Your task to perform on an android device: choose inbox layout in the gmail app Image 0: 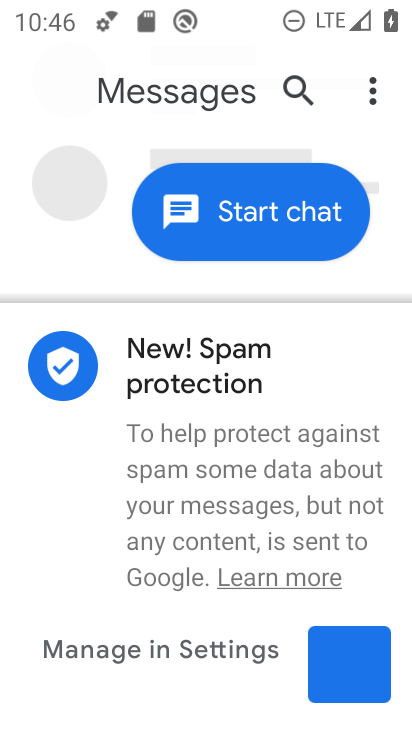
Step 0: press home button
Your task to perform on an android device: choose inbox layout in the gmail app Image 1: 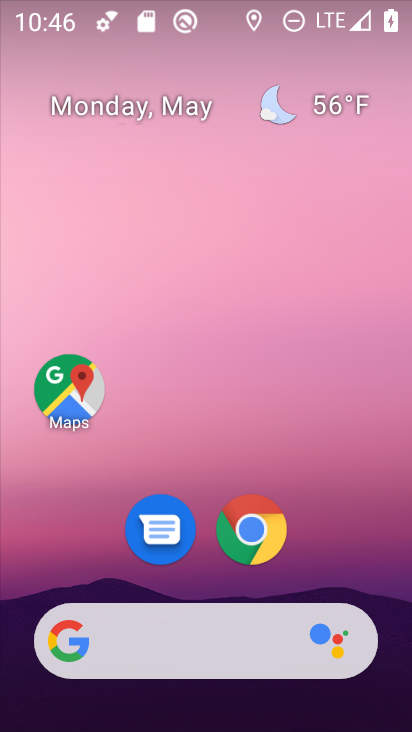
Step 1: drag from (211, 622) to (198, 16)
Your task to perform on an android device: choose inbox layout in the gmail app Image 2: 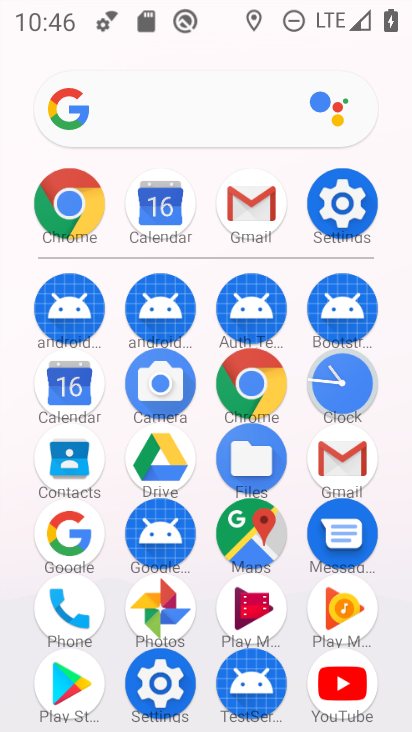
Step 2: click (323, 438)
Your task to perform on an android device: choose inbox layout in the gmail app Image 3: 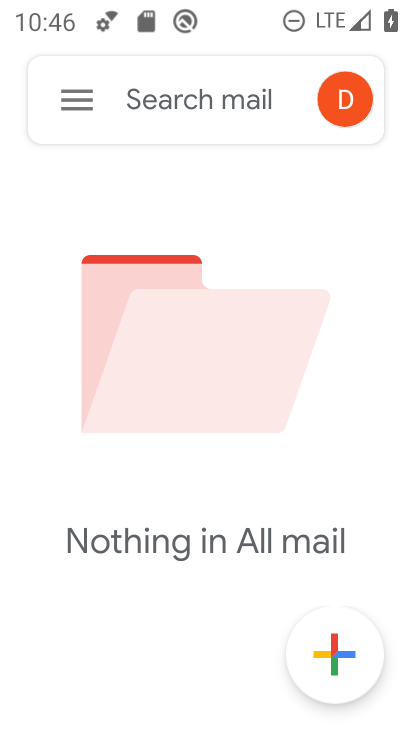
Step 3: click (81, 100)
Your task to perform on an android device: choose inbox layout in the gmail app Image 4: 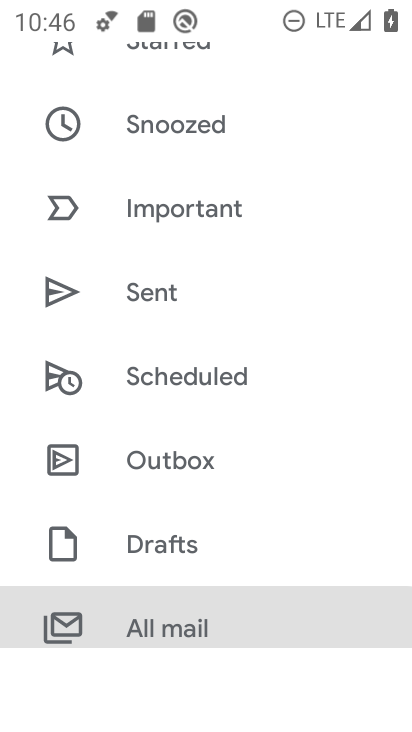
Step 4: drag from (151, 538) to (66, 74)
Your task to perform on an android device: choose inbox layout in the gmail app Image 5: 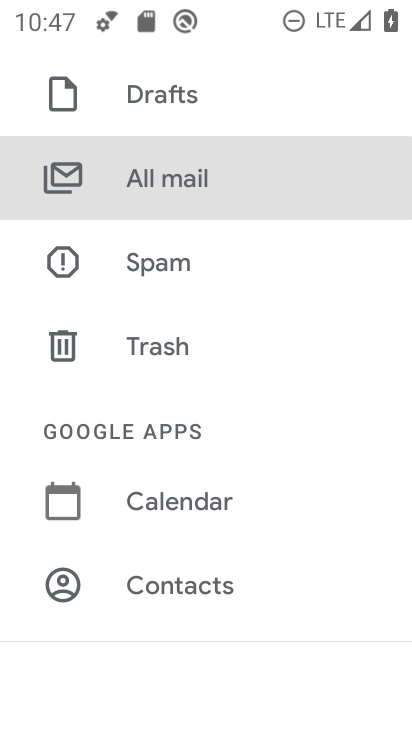
Step 5: drag from (158, 608) to (129, 185)
Your task to perform on an android device: choose inbox layout in the gmail app Image 6: 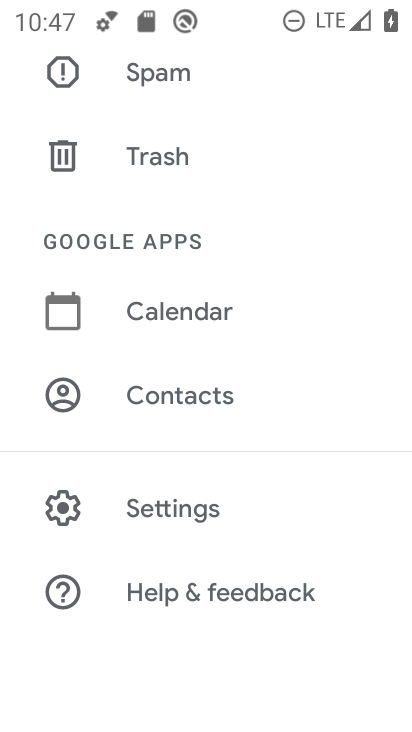
Step 6: click (157, 517)
Your task to perform on an android device: choose inbox layout in the gmail app Image 7: 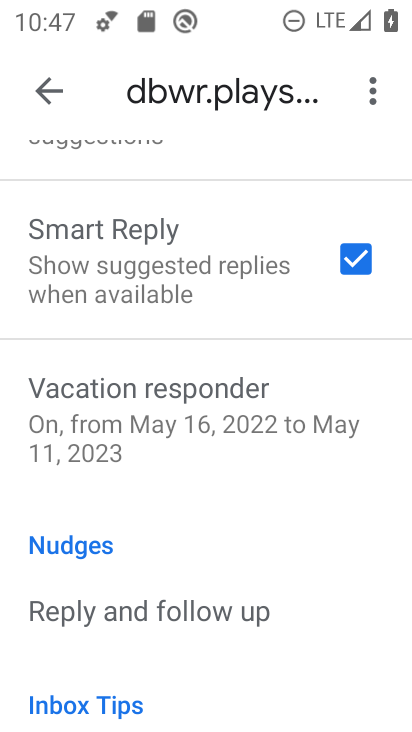
Step 7: drag from (143, 254) to (81, 610)
Your task to perform on an android device: choose inbox layout in the gmail app Image 8: 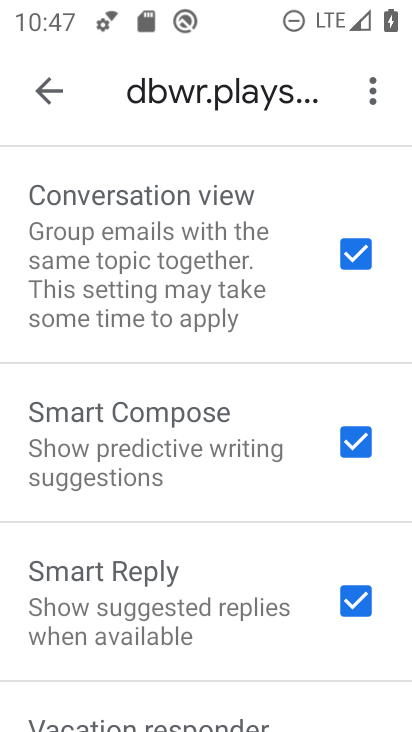
Step 8: drag from (131, 241) to (65, 644)
Your task to perform on an android device: choose inbox layout in the gmail app Image 9: 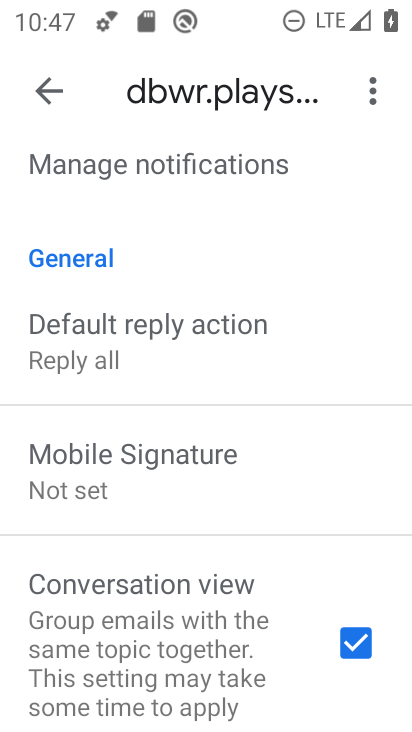
Step 9: drag from (124, 255) to (95, 506)
Your task to perform on an android device: choose inbox layout in the gmail app Image 10: 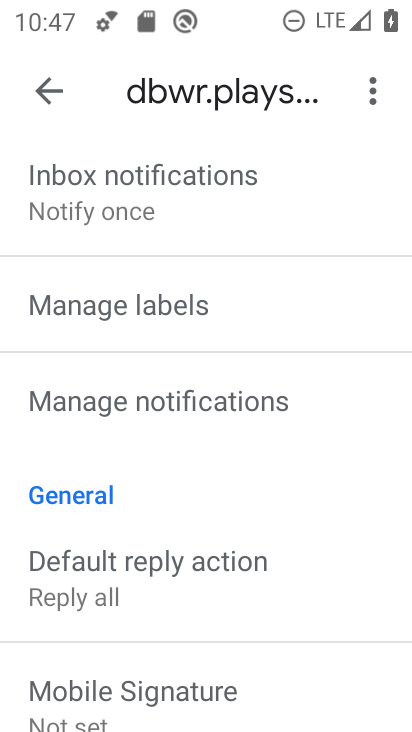
Step 10: drag from (139, 234) to (105, 681)
Your task to perform on an android device: choose inbox layout in the gmail app Image 11: 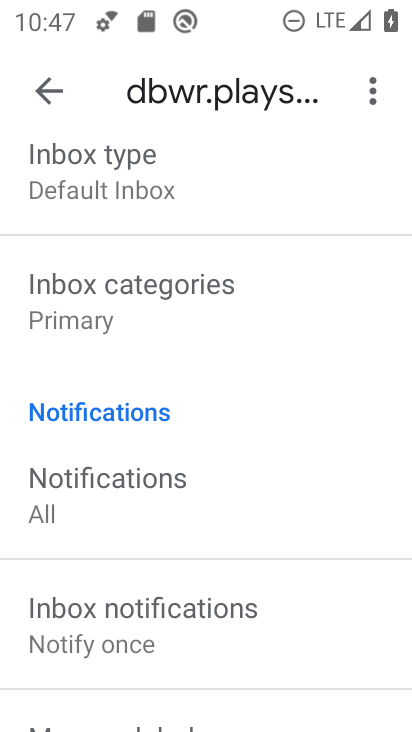
Step 11: click (105, 198)
Your task to perform on an android device: choose inbox layout in the gmail app Image 12: 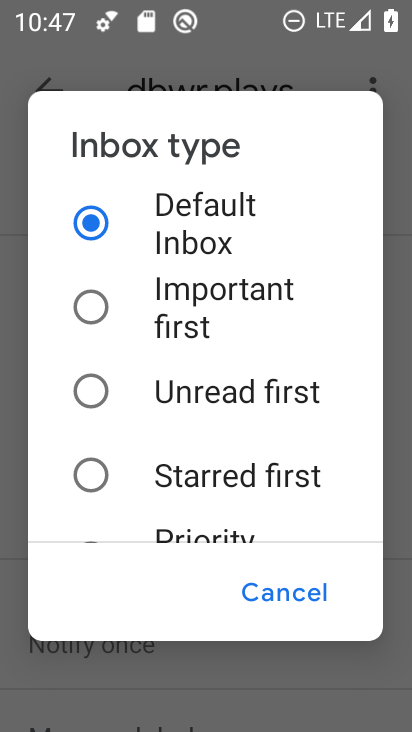
Step 12: drag from (133, 478) to (74, 85)
Your task to perform on an android device: choose inbox layout in the gmail app Image 13: 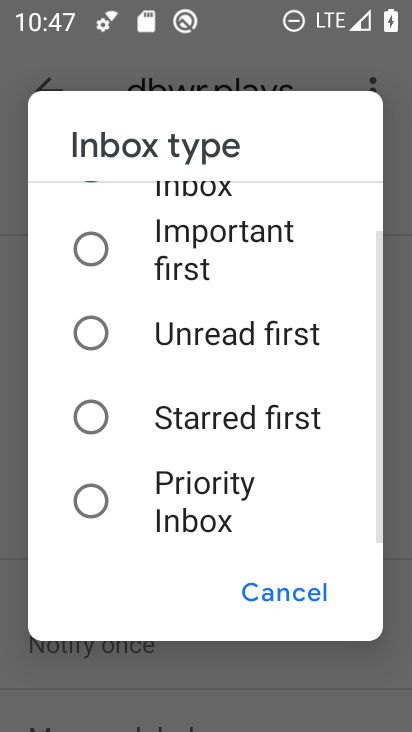
Step 13: click (100, 496)
Your task to perform on an android device: choose inbox layout in the gmail app Image 14: 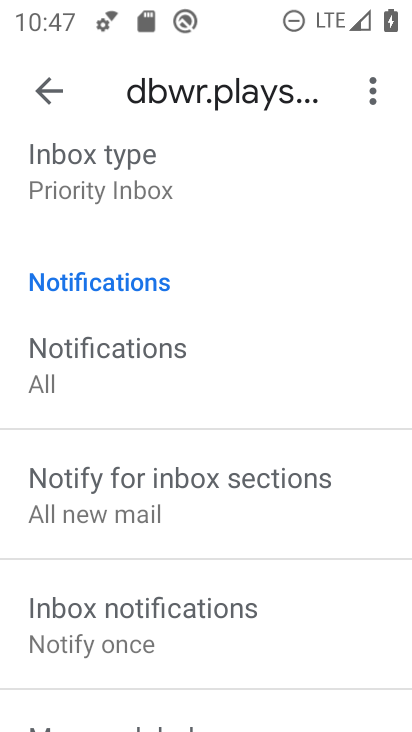
Step 14: task complete